Your task to perform on an android device: open a bookmark in the chrome app Image 0: 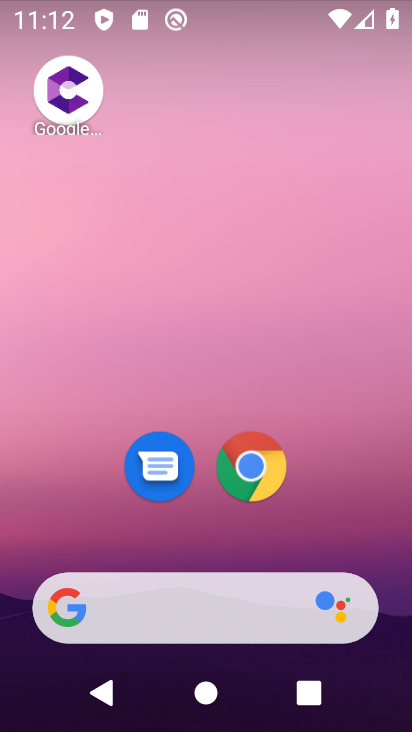
Step 0: click (247, 467)
Your task to perform on an android device: open a bookmark in the chrome app Image 1: 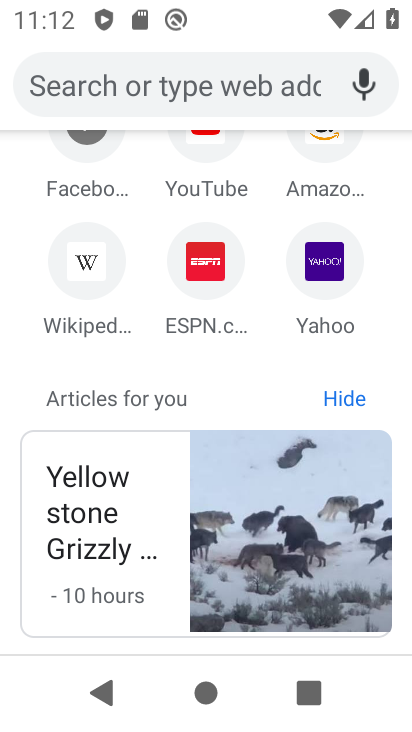
Step 1: drag from (322, 177) to (304, 677)
Your task to perform on an android device: open a bookmark in the chrome app Image 2: 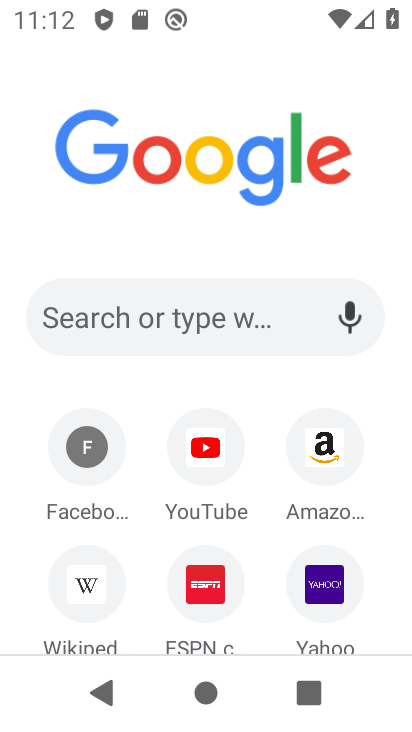
Step 2: drag from (363, 126) to (370, 596)
Your task to perform on an android device: open a bookmark in the chrome app Image 3: 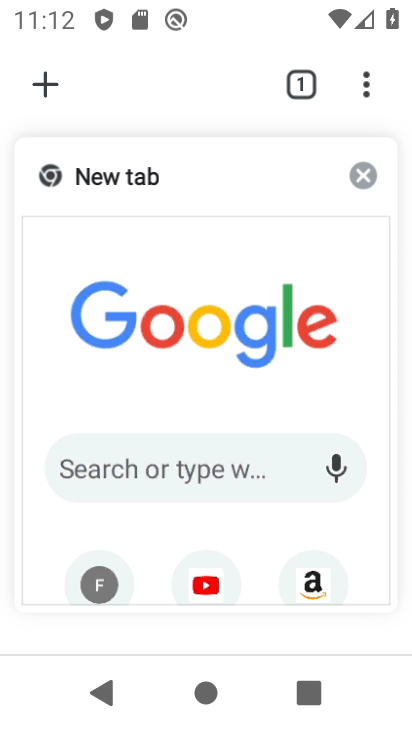
Step 3: click (367, 82)
Your task to perform on an android device: open a bookmark in the chrome app Image 4: 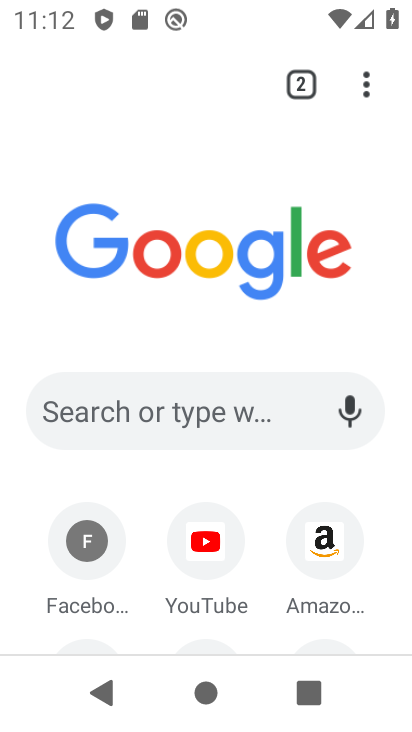
Step 4: drag from (268, 621) to (304, 237)
Your task to perform on an android device: open a bookmark in the chrome app Image 5: 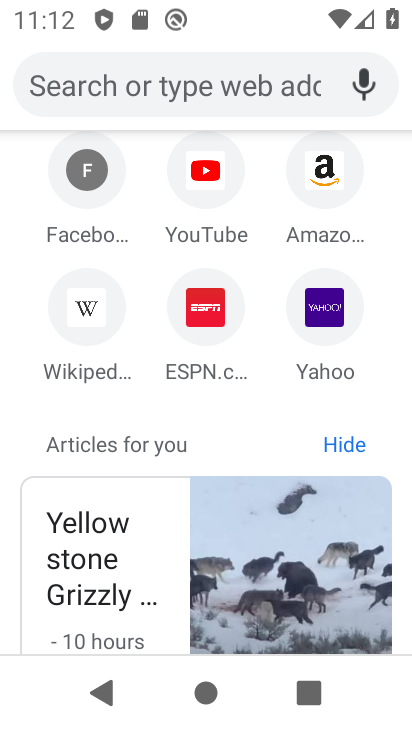
Step 5: drag from (372, 71) to (374, 502)
Your task to perform on an android device: open a bookmark in the chrome app Image 6: 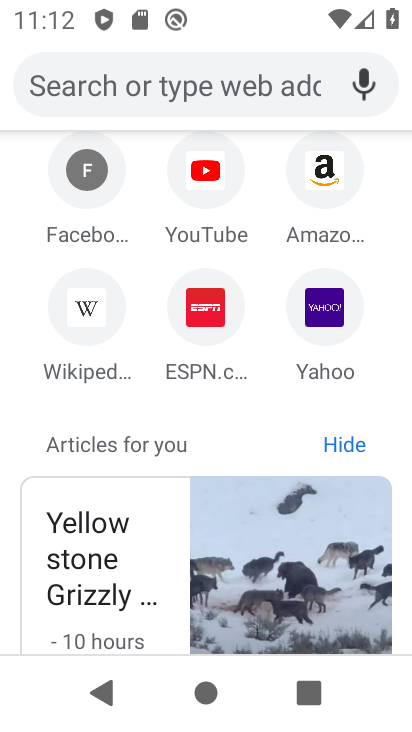
Step 6: drag from (178, 162) to (132, 605)
Your task to perform on an android device: open a bookmark in the chrome app Image 7: 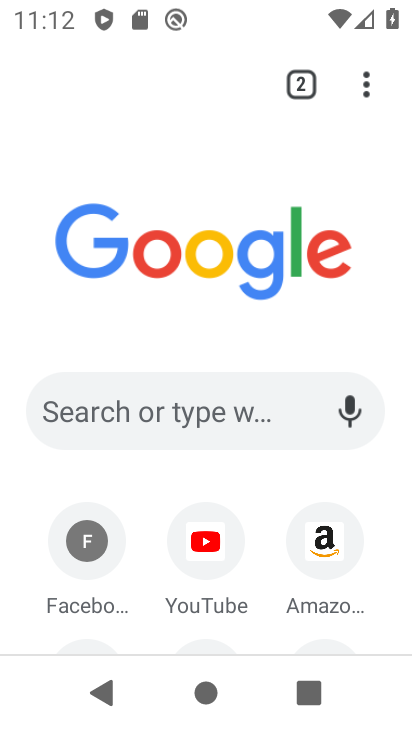
Step 7: click (367, 87)
Your task to perform on an android device: open a bookmark in the chrome app Image 8: 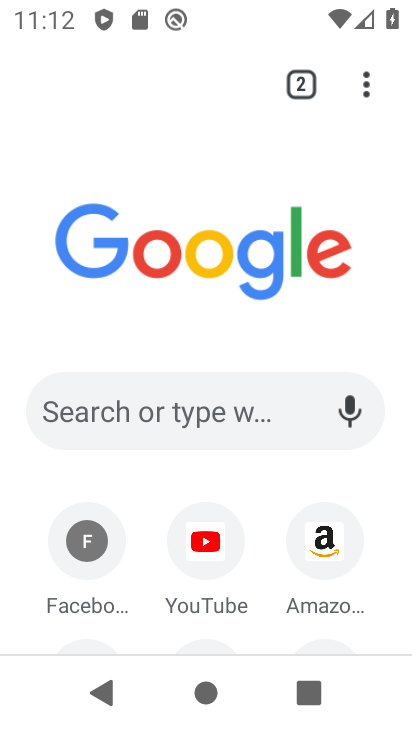
Step 8: click (356, 89)
Your task to perform on an android device: open a bookmark in the chrome app Image 9: 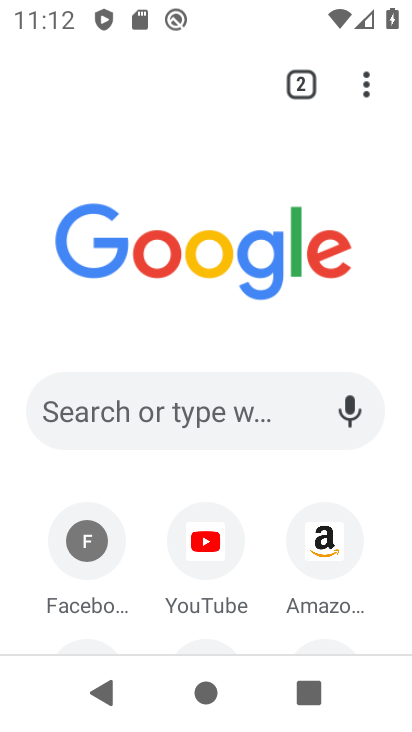
Step 9: click (358, 93)
Your task to perform on an android device: open a bookmark in the chrome app Image 10: 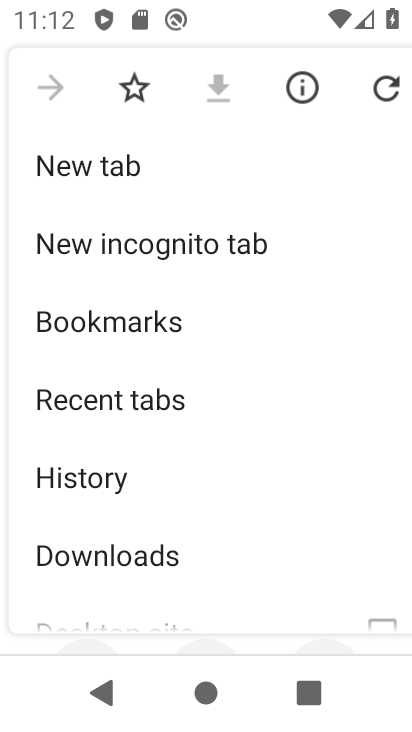
Step 10: click (73, 325)
Your task to perform on an android device: open a bookmark in the chrome app Image 11: 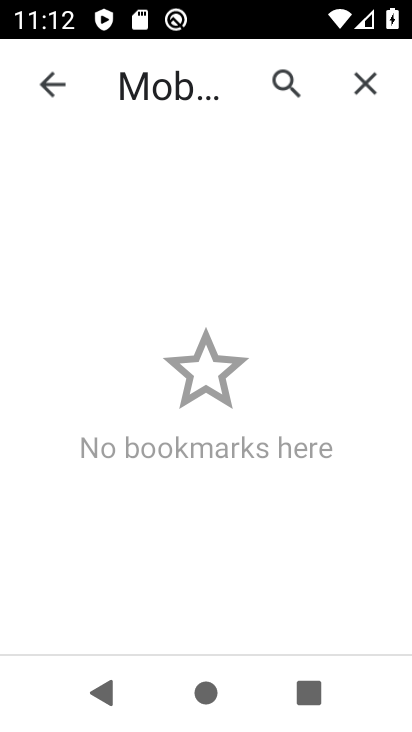
Step 11: task complete